Your task to perform on an android device: set default search engine in the chrome app Image 0: 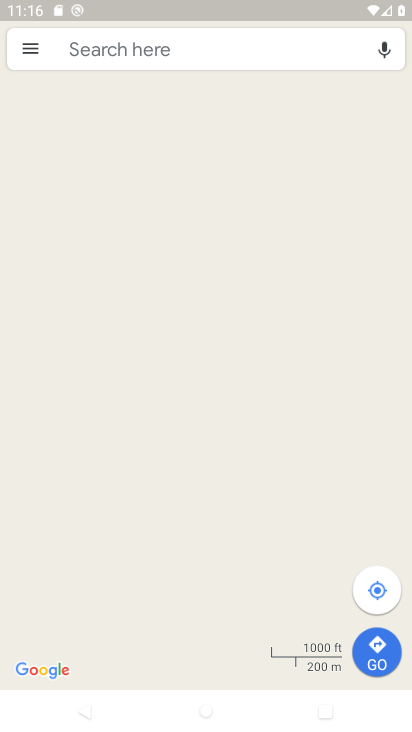
Step 0: press home button
Your task to perform on an android device: set default search engine in the chrome app Image 1: 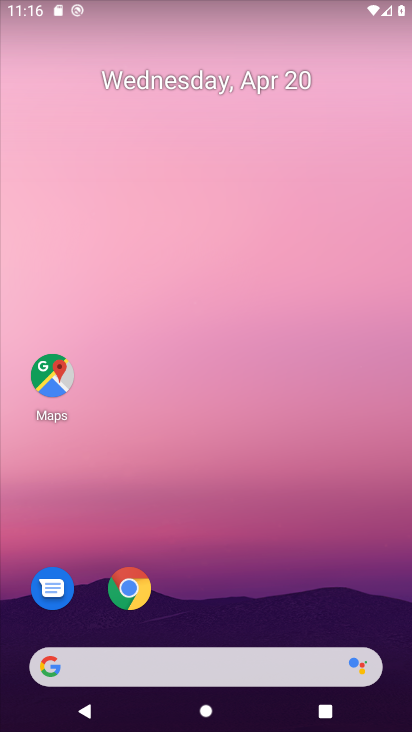
Step 1: click (128, 591)
Your task to perform on an android device: set default search engine in the chrome app Image 2: 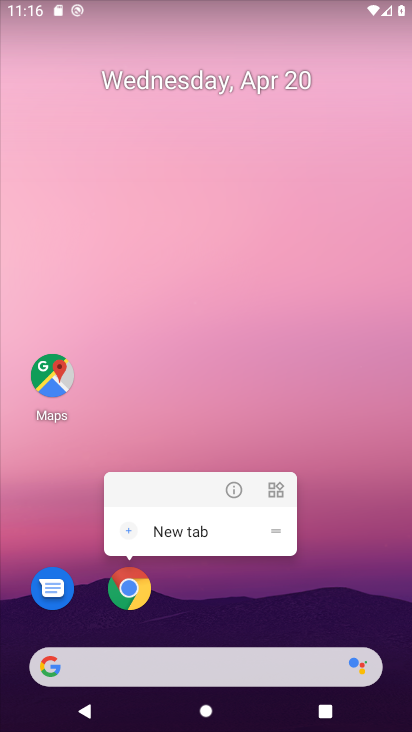
Step 2: click (138, 584)
Your task to perform on an android device: set default search engine in the chrome app Image 3: 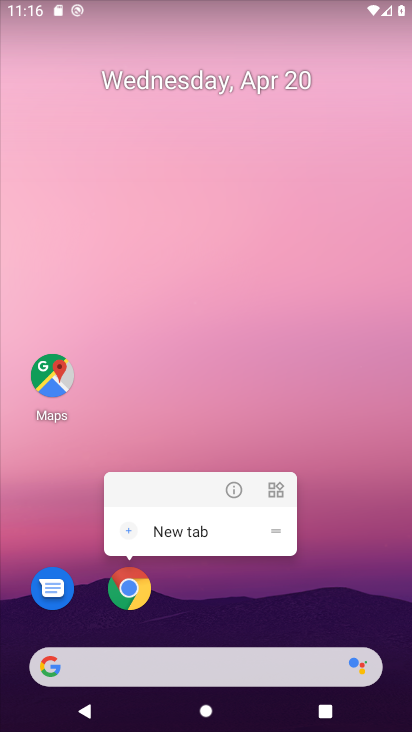
Step 3: click (138, 584)
Your task to perform on an android device: set default search engine in the chrome app Image 4: 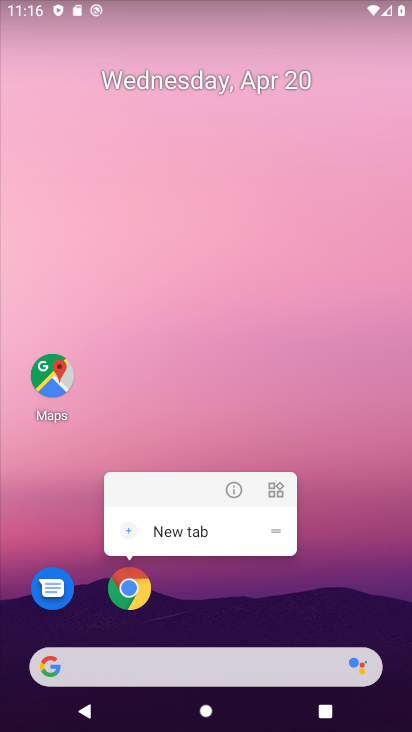
Step 4: click (130, 589)
Your task to perform on an android device: set default search engine in the chrome app Image 5: 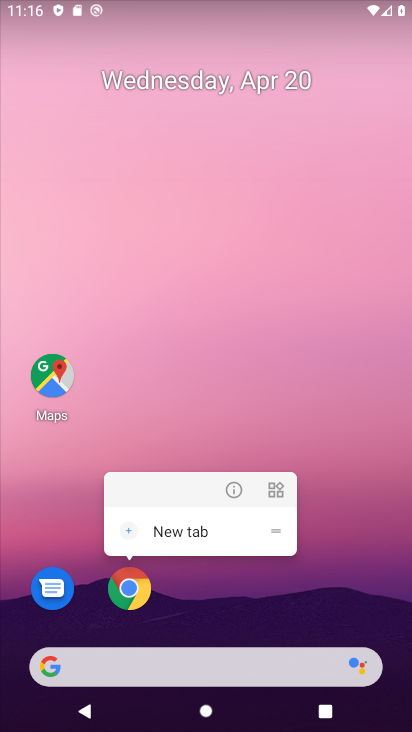
Step 5: click (130, 589)
Your task to perform on an android device: set default search engine in the chrome app Image 6: 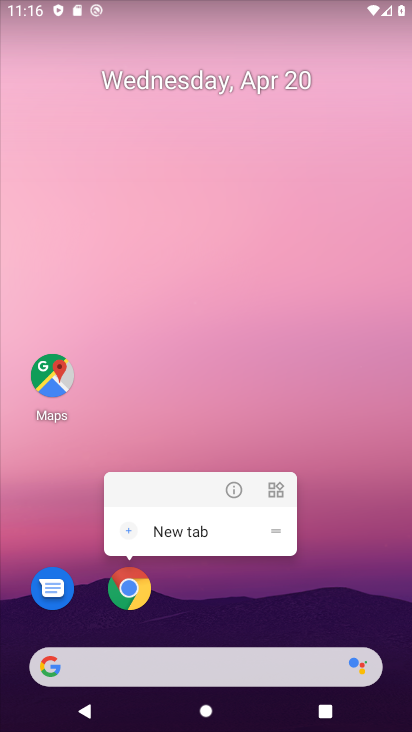
Step 6: click (130, 589)
Your task to perform on an android device: set default search engine in the chrome app Image 7: 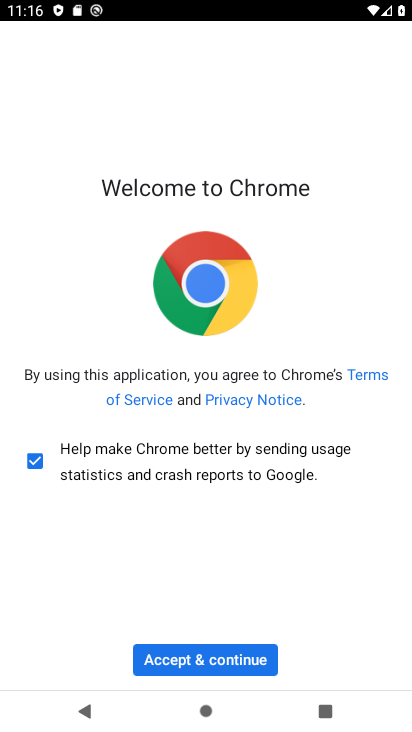
Step 7: click (209, 664)
Your task to perform on an android device: set default search engine in the chrome app Image 8: 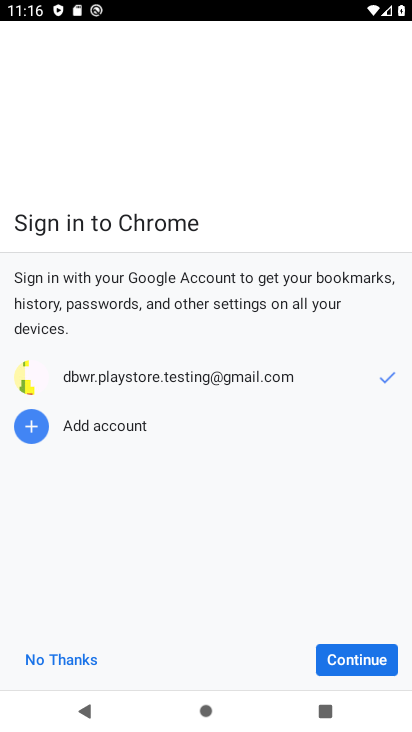
Step 8: click (367, 661)
Your task to perform on an android device: set default search engine in the chrome app Image 9: 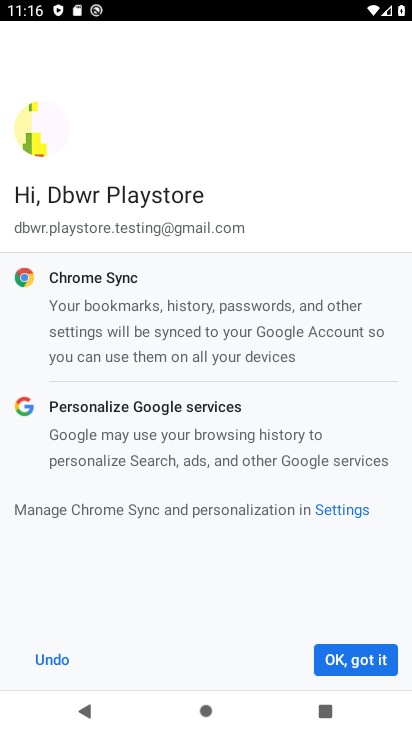
Step 9: click (368, 657)
Your task to perform on an android device: set default search engine in the chrome app Image 10: 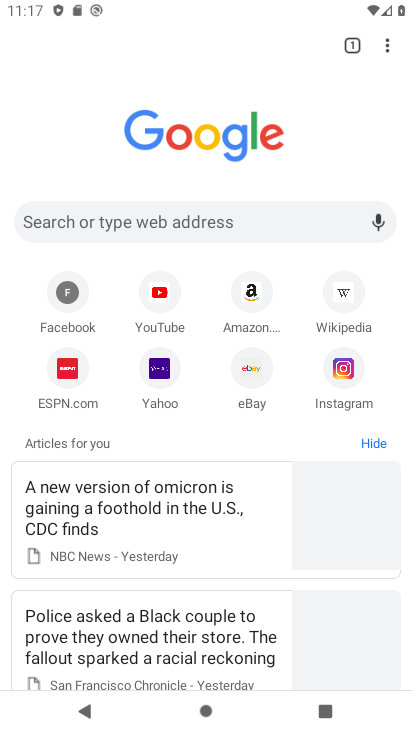
Step 10: drag from (385, 42) to (261, 430)
Your task to perform on an android device: set default search engine in the chrome app Image 11: 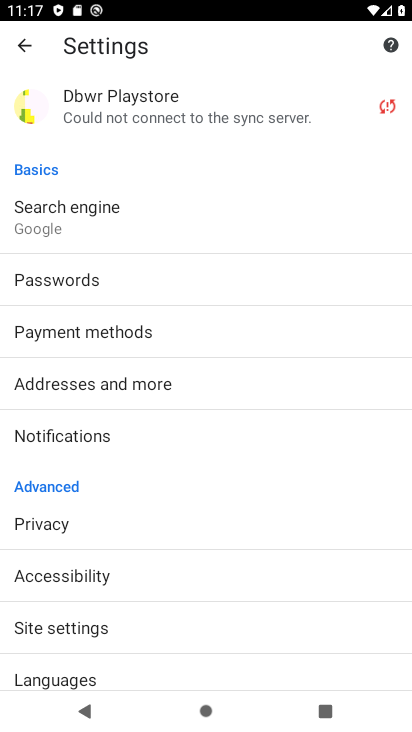
Step 11: click (112, 221)
Your task to perform on an android device: set default search engine in the chrome app Image 12: 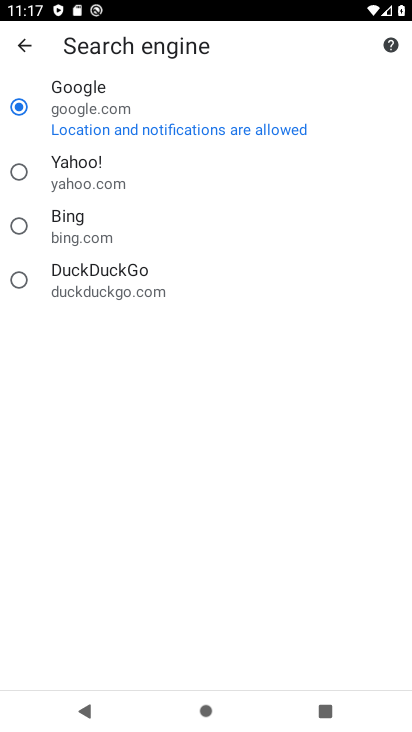
Step 12: click (123, 186)
Your task to perform on an android device: set default search engine in the chrome app Image 13: 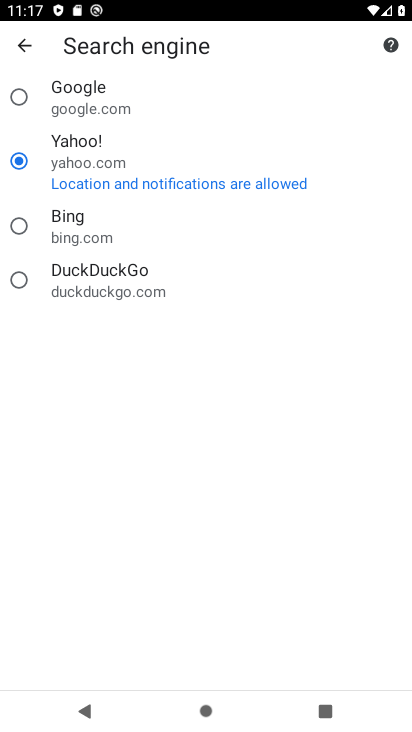
Step 13: task complete